Your task to perform on an android device: toggle improve location accuracy Image 0: 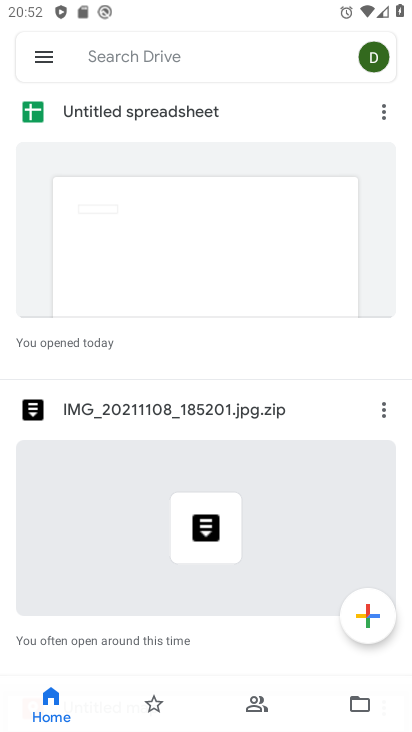
Step 0: press home button
Your task to perform on an android device: toggle improve location accuracy Image 1: 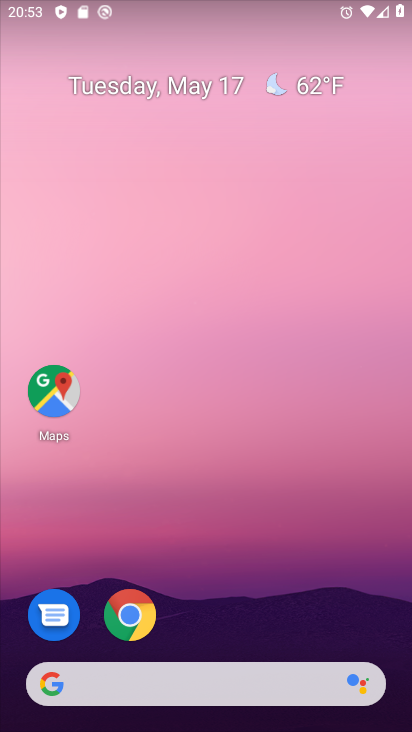
Step 1: drag from (247, 595) to (283, 77)
Your task to perform on an android device: toggle improve location accuracy Image 2: 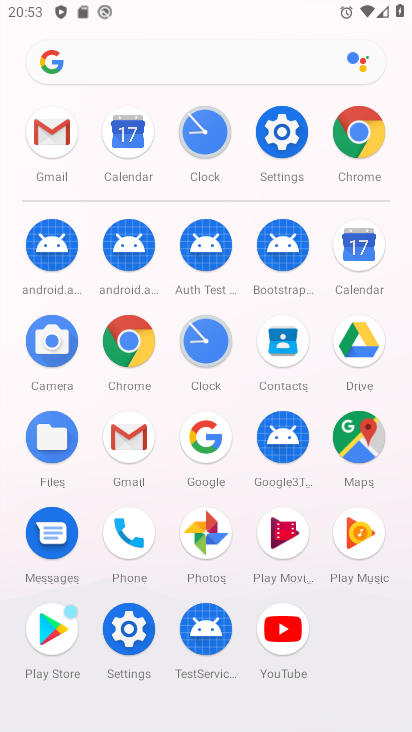
Step 2: click (282, 134)
Your task to perform on an android device: toggle improve location accuracy Image 3: 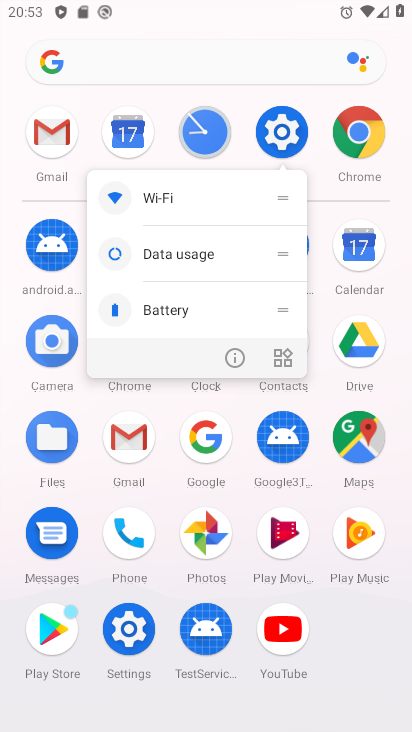
Step 3: click (293, 118)
Your task to perform on an android device: toggle improve location accuracy Image 4: 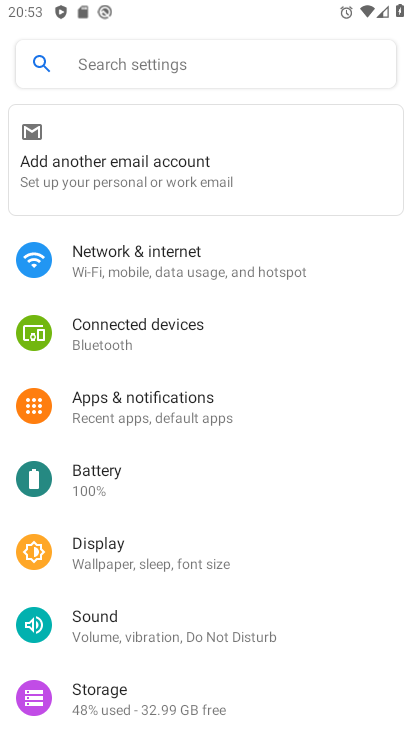
Step 4: drag from (204, 666) to (244, 172)
Your task to perform on an android device: toggle improve location accuracy Image 5: 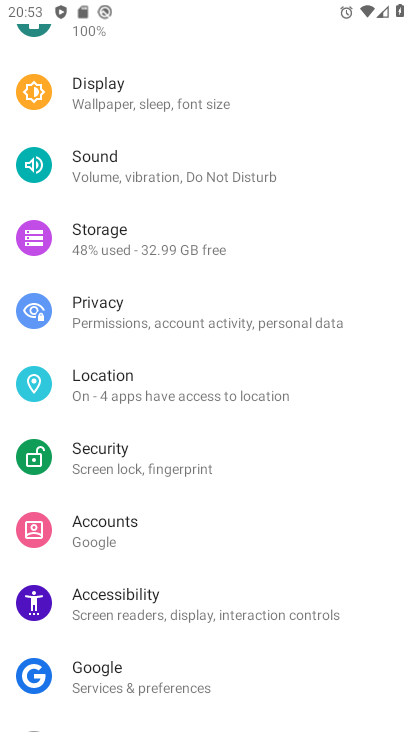
Step 5: click (128, 389)
Your task to perform on an android device: toggle improve location accuracy Image 6: 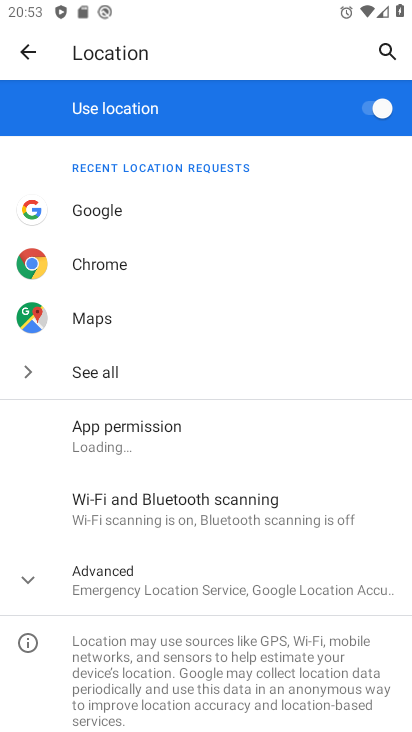
Step 6: click (180, 585)
Your task to perform on an android device: toggle improve location accuracy Image 7: 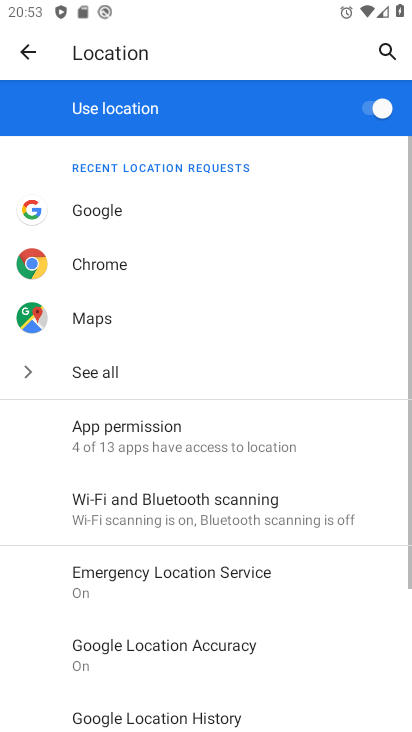
Step 7: drag from (247, 598) to (268, 236)
Your task to perform on an android device: toggle improve location accuracy Image 8: 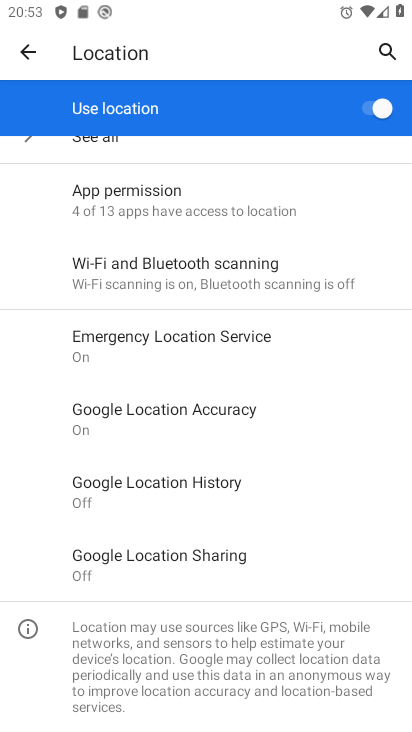
Step 8: click (197, 405)
Your task to perform on an android device: toggle improve location accuracy Image 9: 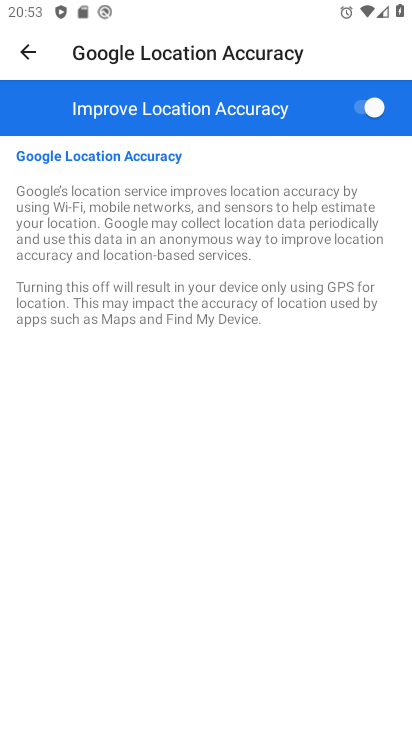
Step 9: click (368, 107)
Your task to perform on an android device: toggle improve location accuracy Image 10: 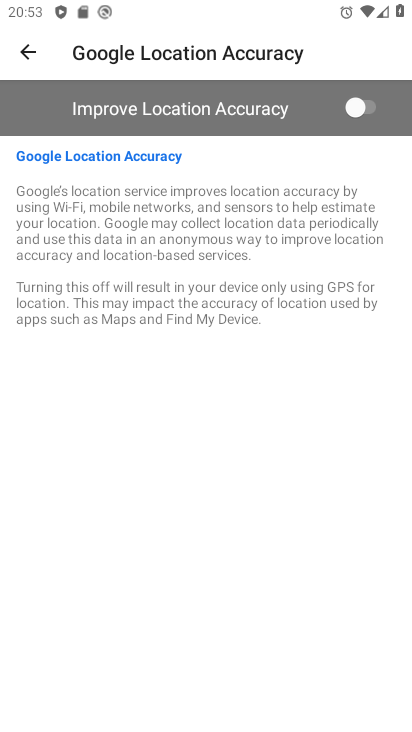
Step 10: task complete